Your task to perform on an android device: Do I have any events this weekend? Image 0: 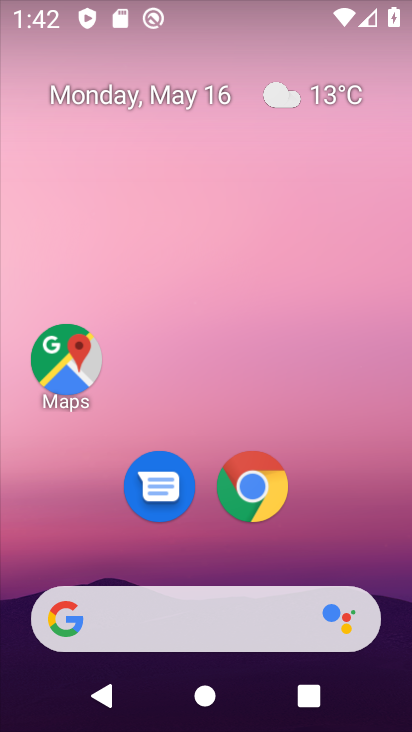
Step 0: drag from (376, 476) to (346, 0)
Your task to perform on an android device: Do I have any events this weekend? Image 1: 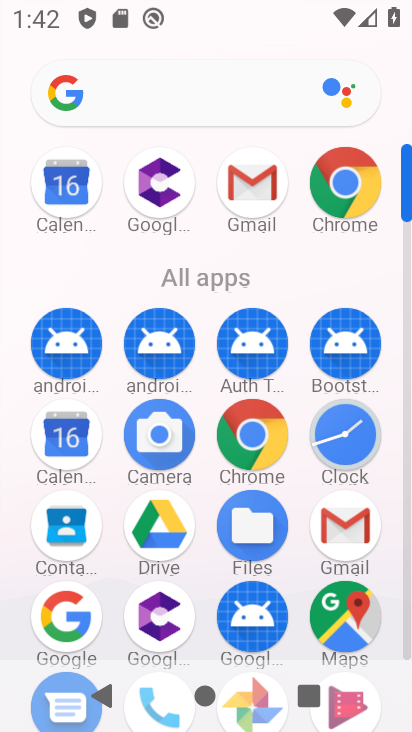
Step 1: click (65, 241)
Your task to perform on an android device: Do I have any events this weekend? Image 2: 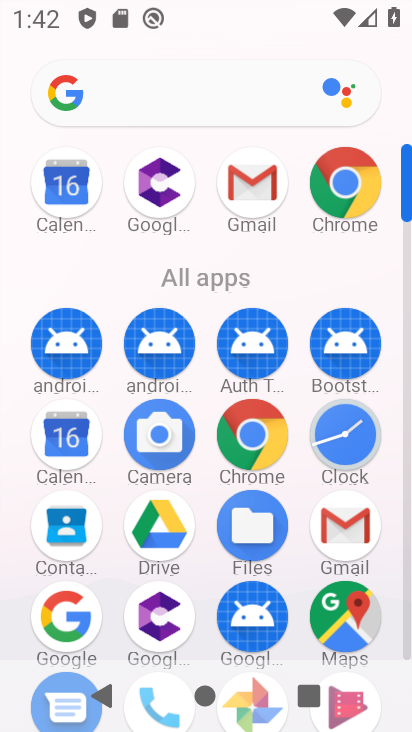
Step 2: click (82, 426)
Your task to perform on an android device: Do I have any events this weekend? Image 3: 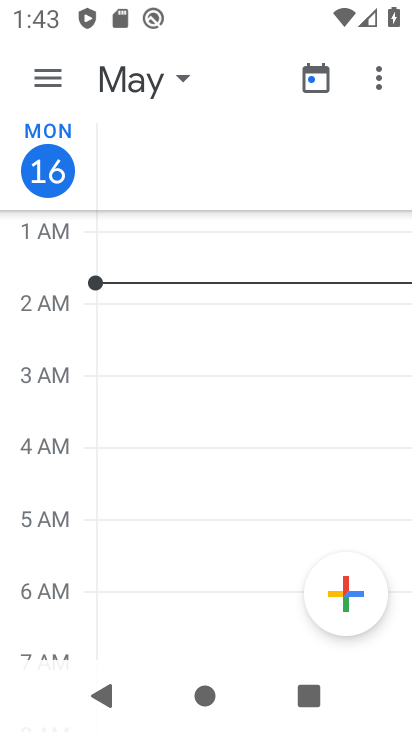
Step 3: click (143, 90)
Your task to perform on an android device: Do I have any events this weekend? Image 4: 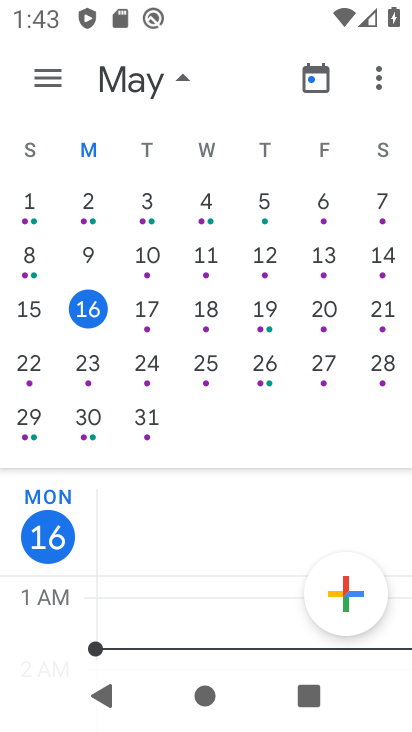
Step 4: task complete